Your task to perform on an android device: Go to notification settings Image 0: 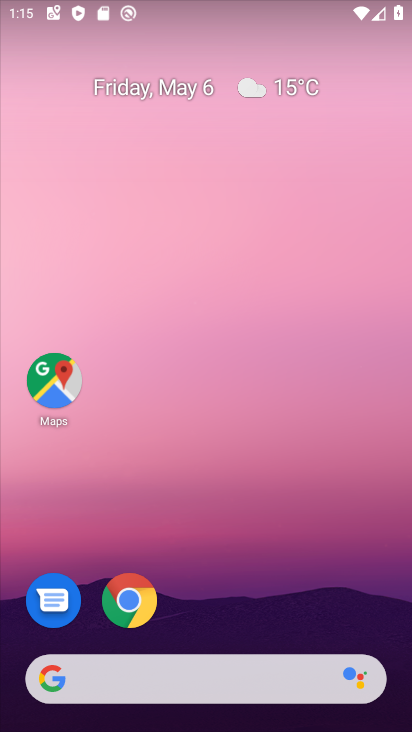
Step 0: drag from (328, 614) to (312, 126)
Your task to perform on an android device: Go to notification settings Image 1: 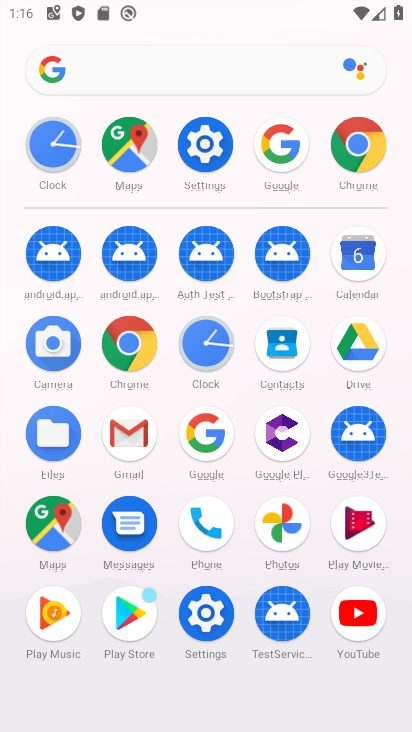
Step 1: click (202, 609)
Your task to perform on an android device: Go to notification settings Image 2: 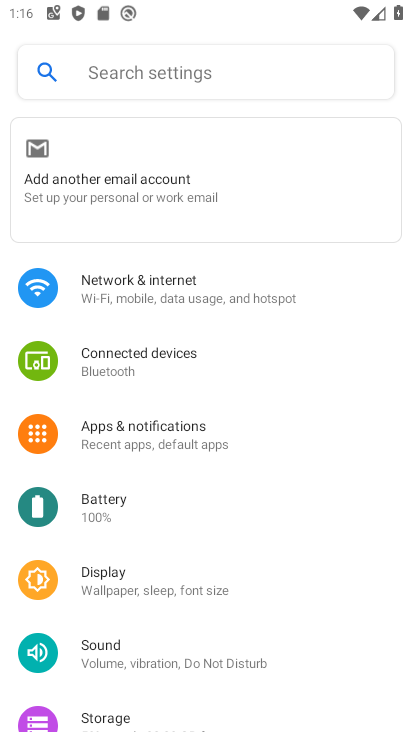
Step 2: click (178, 450)
Your task to perform on an android device: Go to notification settings Image 3: 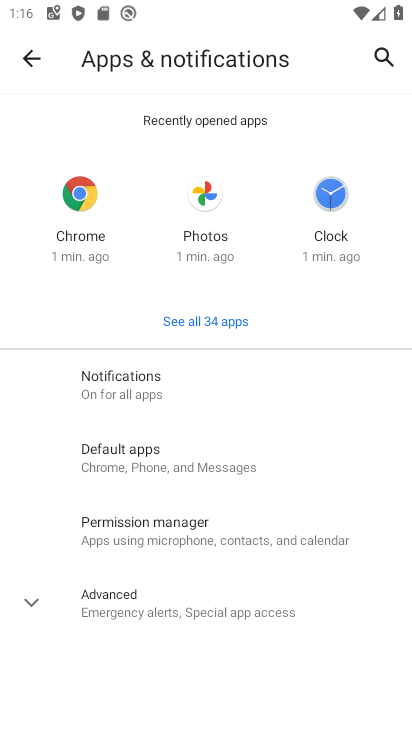
Step 3: click (224, 383)
Your task to perform on an android device: Go to notification settings Image 4: 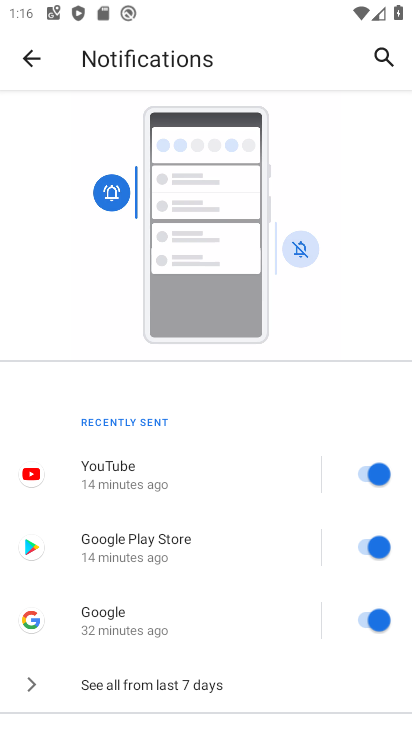
Step 4: task complete